Your task to perform on an android device: open sync settings in chrome Image 0: 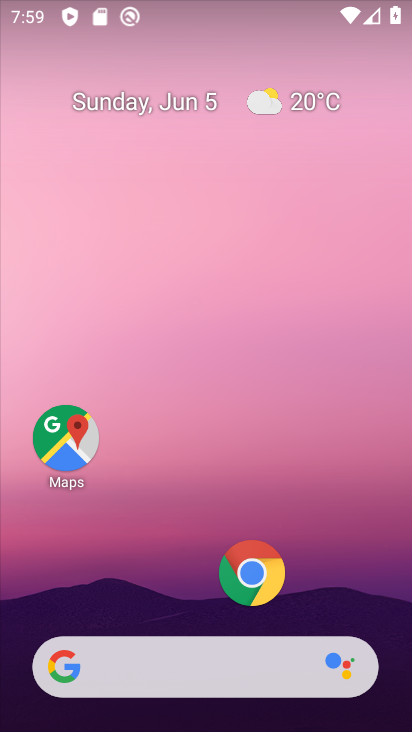
Step 0: click (237, 576)
Your task to perform on an android device: open sync settings in chrome Image 1: 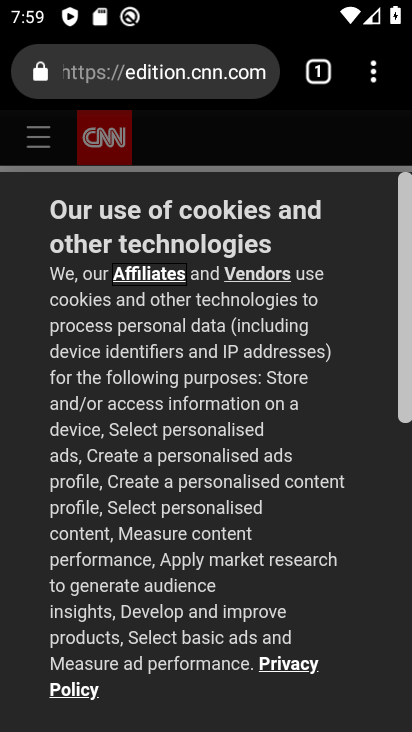
Step 1: click (381, 71)
Your task to perform on an android device: open sync settings in chrome Image 2: 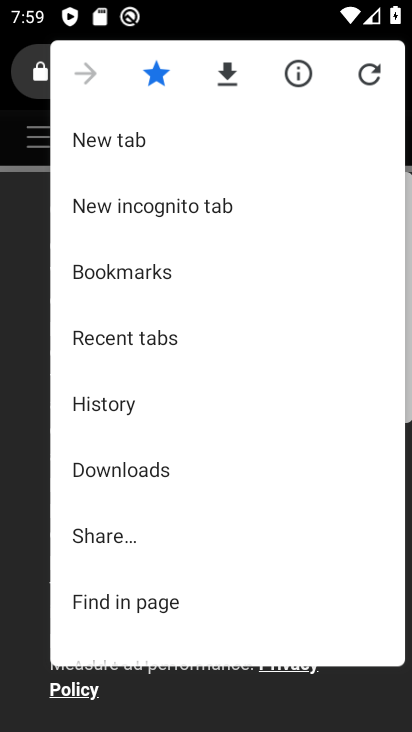
Step 2: drag from (182, 580) to (205, 95)
Your task to perform on an android device: open sync settings in chrome Image 3: 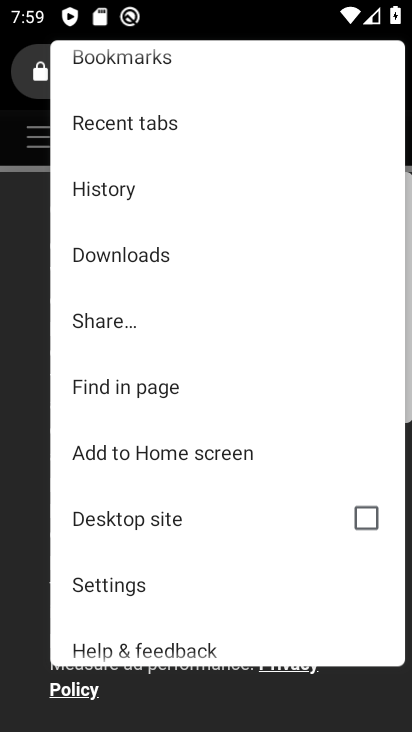
Step 3: click (84, 591)
Your task to perform on an android device: open sync settings in chrome Image 4: 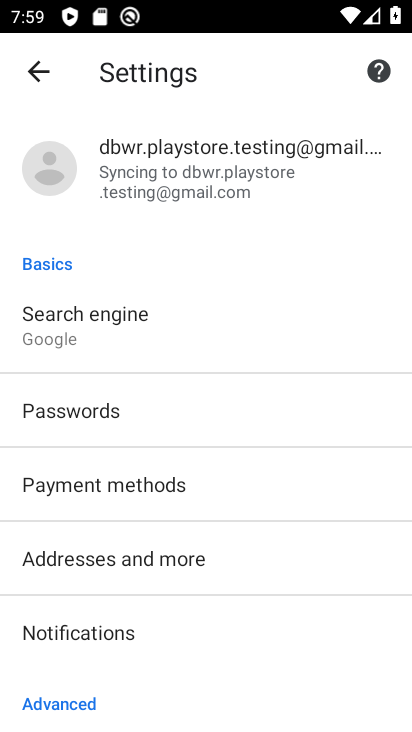
Step 4: drag from (84, 591) to (63, 144)
Your task to perform on an android device: open sync settings in chrome Image 5: 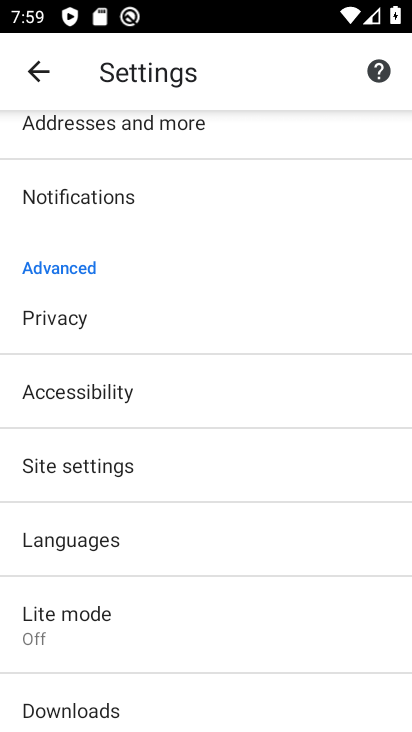
Step 5: drag from (152, 218) to (137, 679)
Your task to perform on an android device: open sync settings in chrome Image 6: 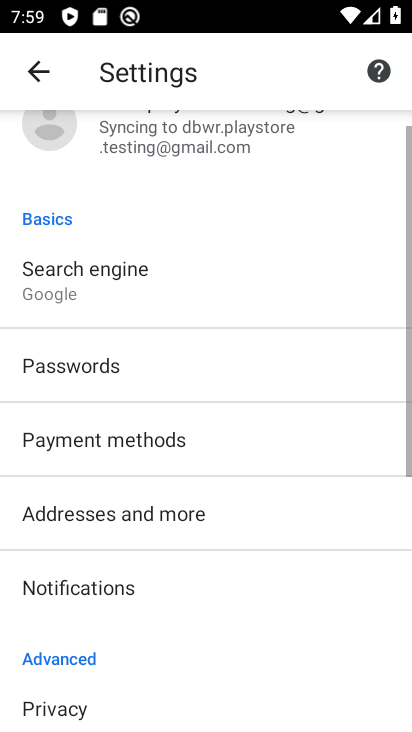
Step 6: click (201, 176)
Your task to perform on an android device: open sync settings in chrome Image 7: 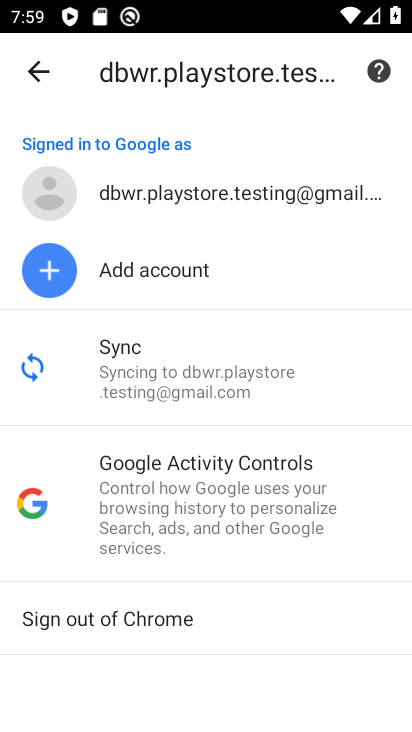
Step 7: click (141, 351)
Your task to perform on an android device: open sync settings in chrome Image 8: 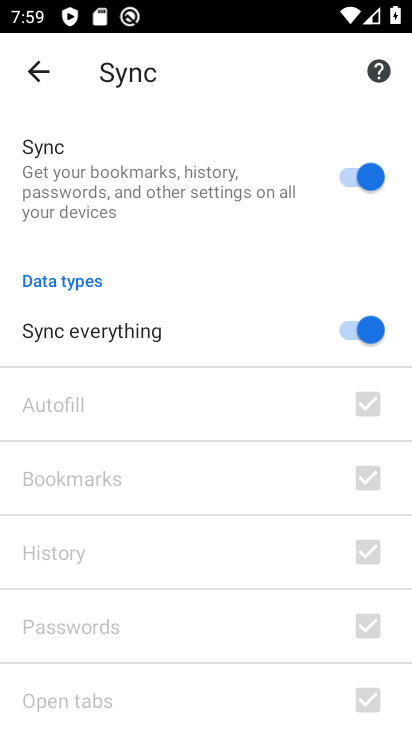
Step 8: task complete